Your task to perform on an android device: refresh tabs in the chrome app Image 0: 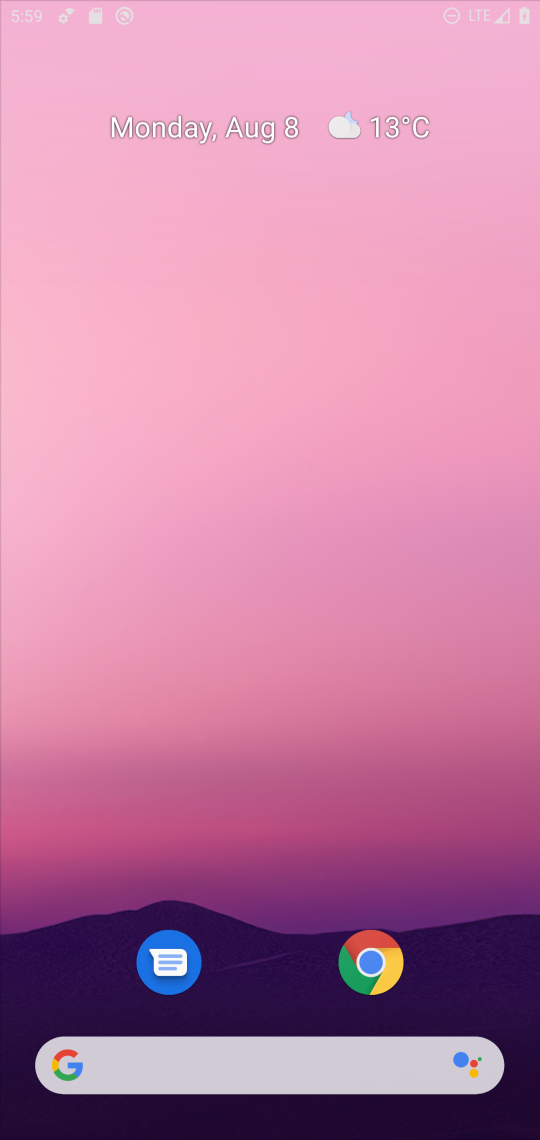
Step 0: press home button
Your task to perform on an android device: refresh tabs in the chrome app Image 1: 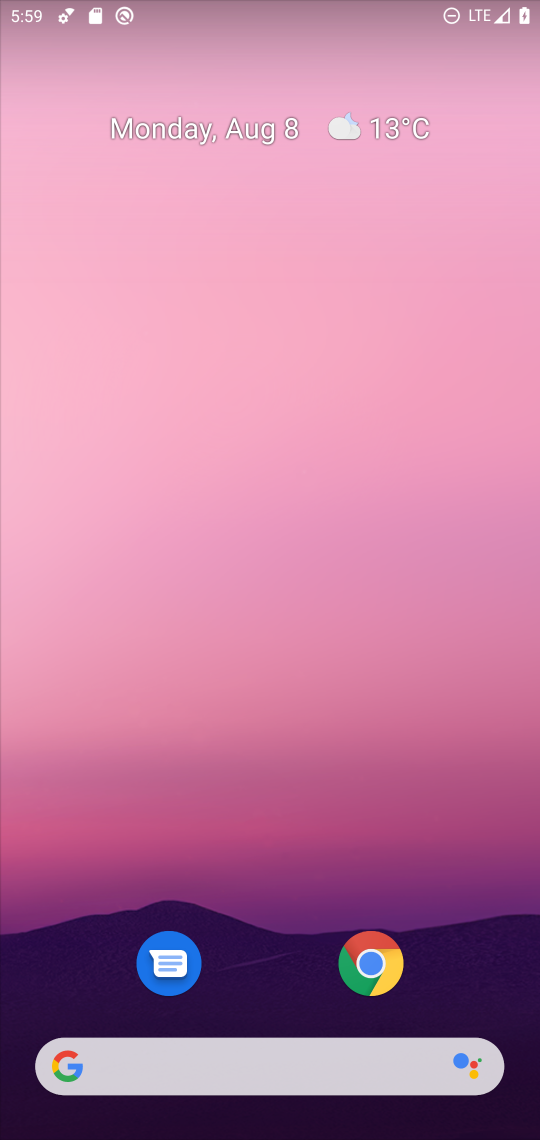
Step 1: click (368, 958)
Your task to perform on an android device: refresh tabs in the chrome app Image 2: 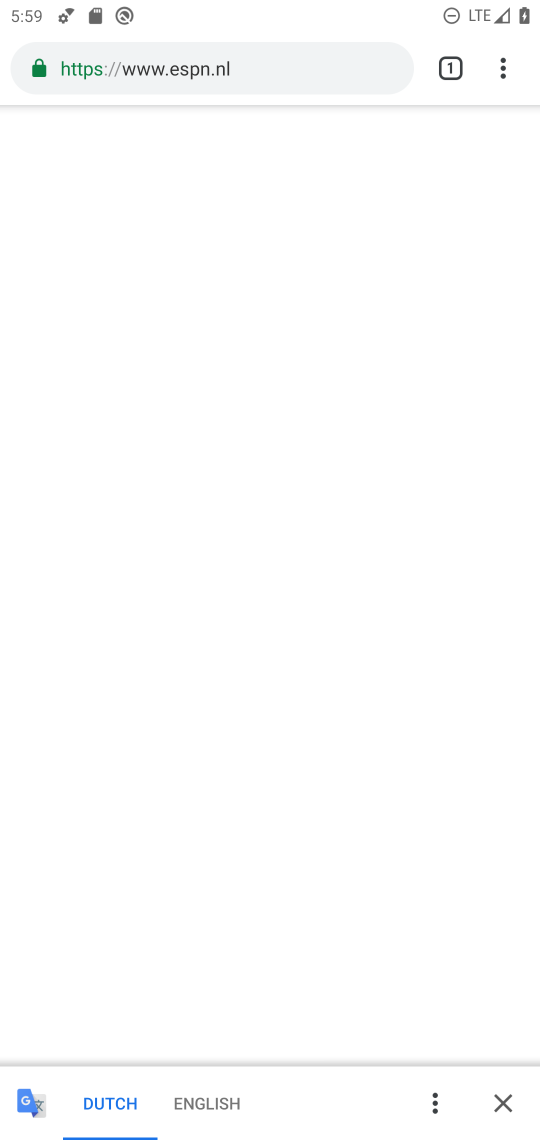
Step 2: click (502, 72)
Your task to perform on an android device: refresh tabs in the chrome app Image 3: 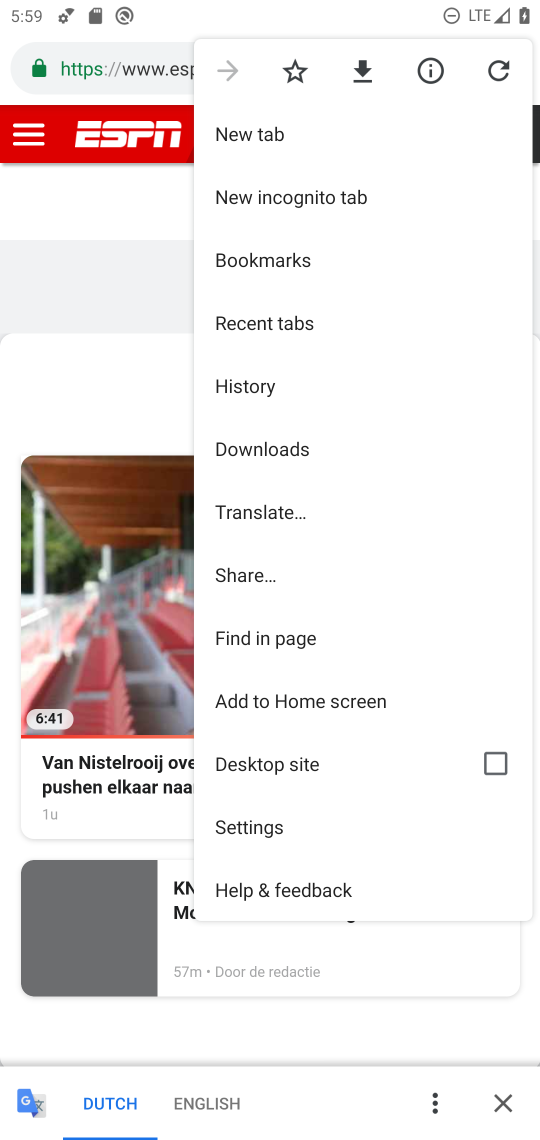
Step 3: click (498, 72)
Your task to perform on an android device: refresh tabs in the chrome app Image 4: 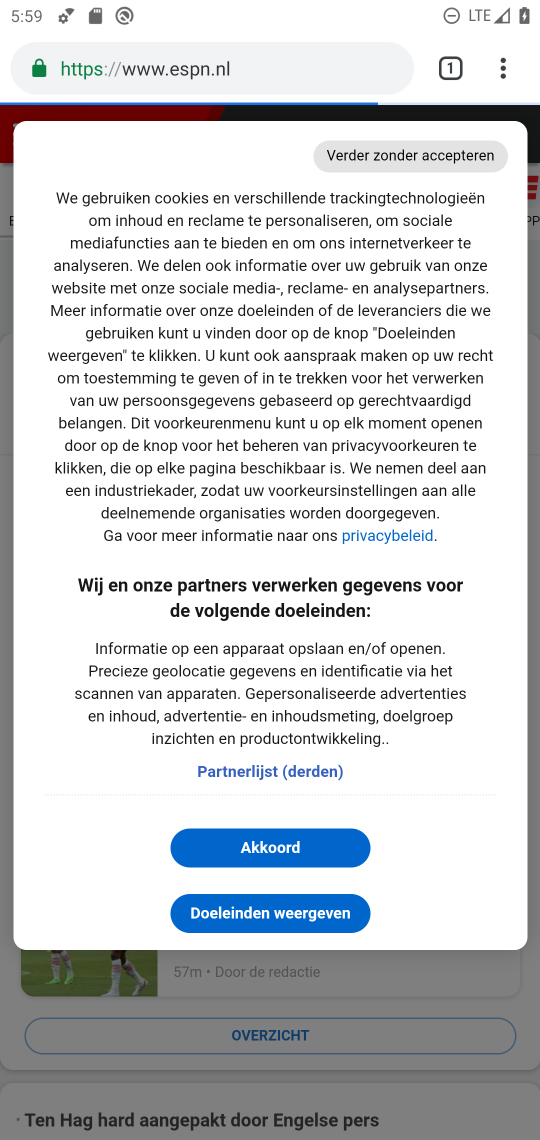
Step 4: task complete